Your task to perform on an android device: delete a single message in the gmail app Image 0: 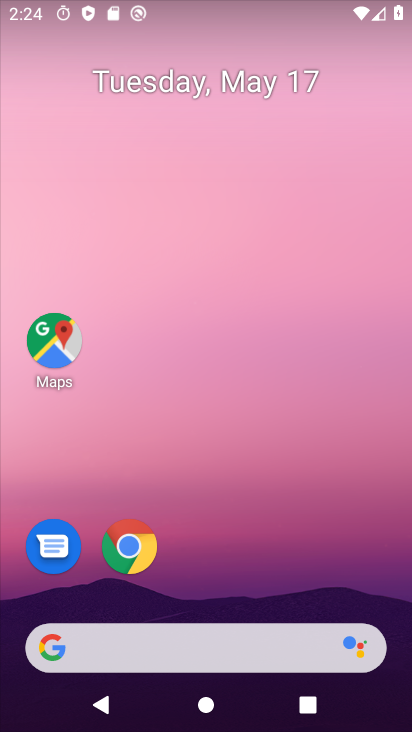
Step 0: drag from (269, 634) to (295, 284)
Your task to perform on an android device: delete a single message in the gmail app Image 1: 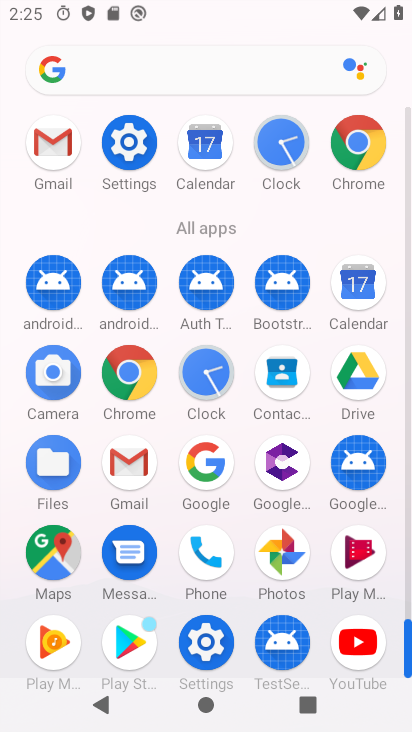
Step 1: click (126, 478)
Your task to perform on an android device: delete a single message in the gmail app Image 2: 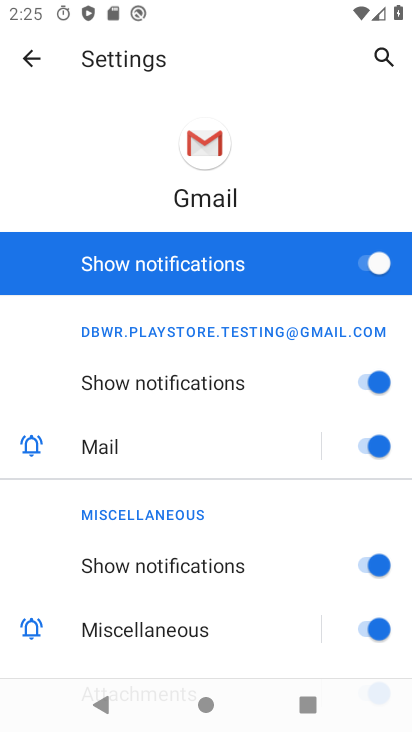
Step 2: click (47, 73)
Your task to perform on an android device: delete a single message in the gmail app Image 3: 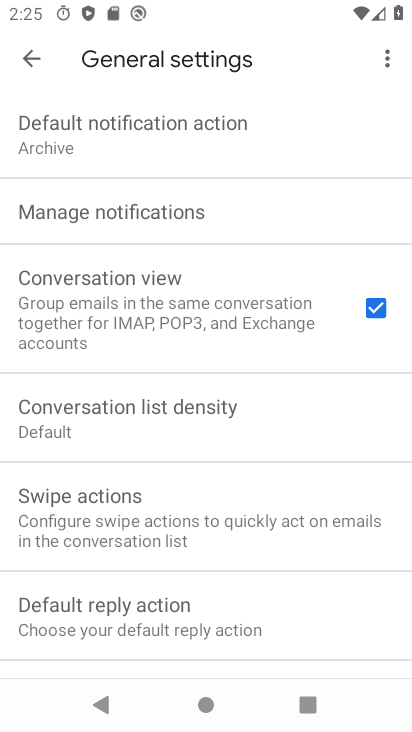
Step 3: click (27, 48)
Your task to perform on an android device: delete a single message in the gmail app Image 4: 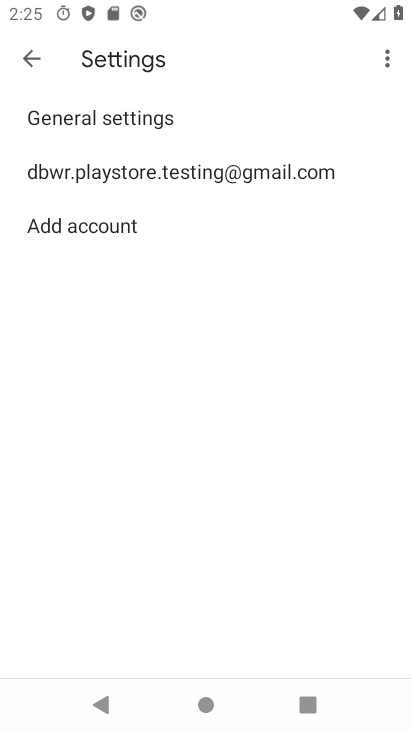
Step 4: click (39, 64)
Your task to perform on an android device: delete a single message in the gmail app Image 5: 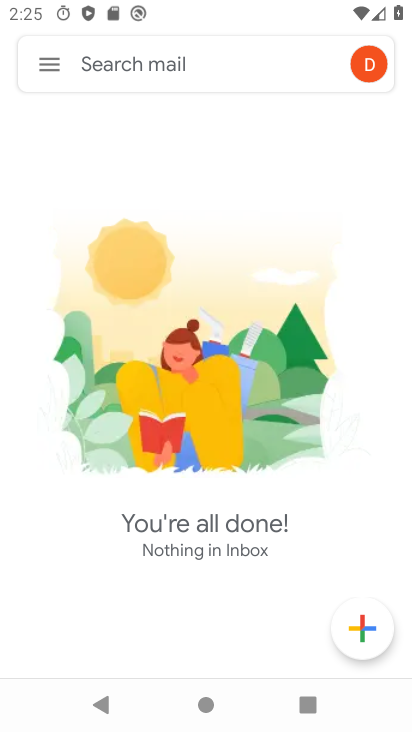
Step 5: click (39, 64)
Your task to perform on an android device: delete a single message in the gmail app Image 6: 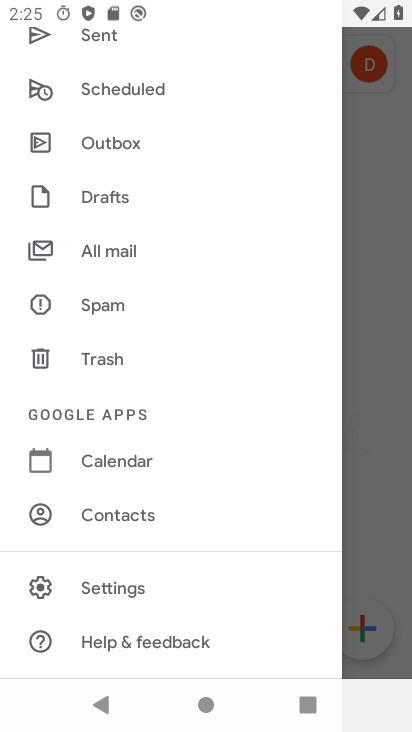
Step 6: click (127, 249)
Your task to perform on an android device: delete a single message in the gmail app Image 7: 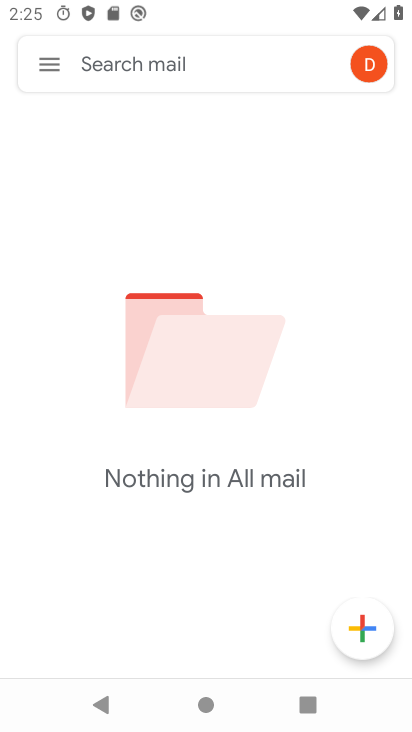
Step 7: task complete